Your task to perform on an android device: Open accessibility settings Image 0: 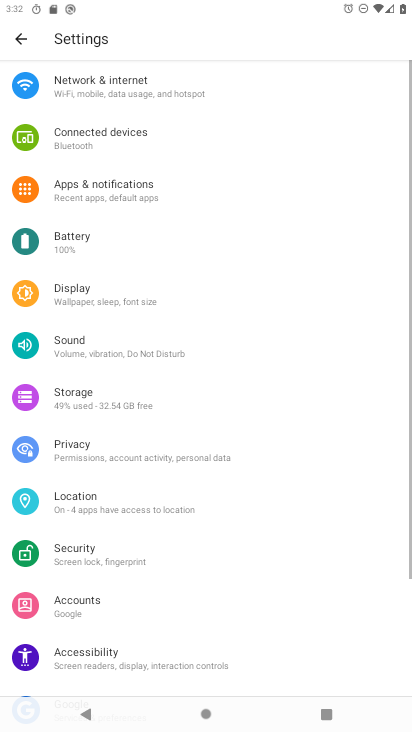
Step 0: press home button
Your task to perform on an android device: Open accessibility settings Image 1: 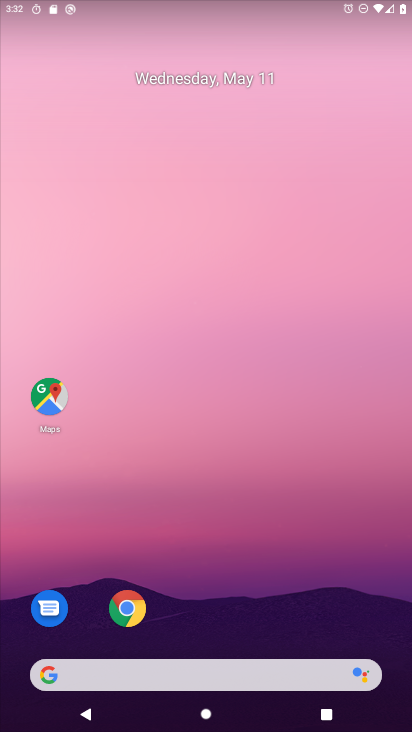
Step 1: drag from (188, 599) to (196, 67)
Your task to perform on an android device: Open accessibility settings Image 2: 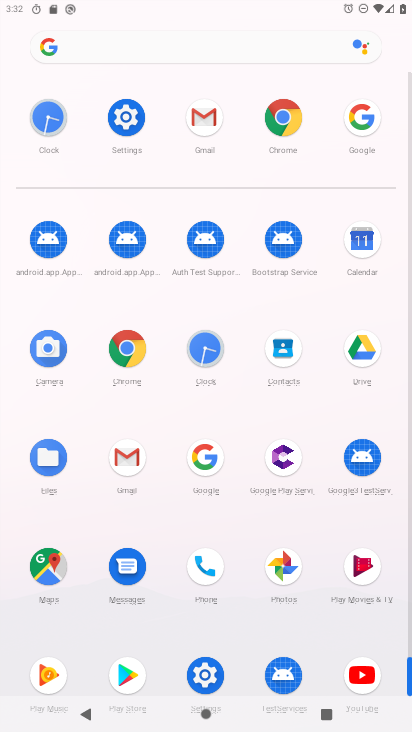
Step 2: drag from (208, 404) to (208, 107)
Your task to perform on an android device: Open accessibility settings Image 3: 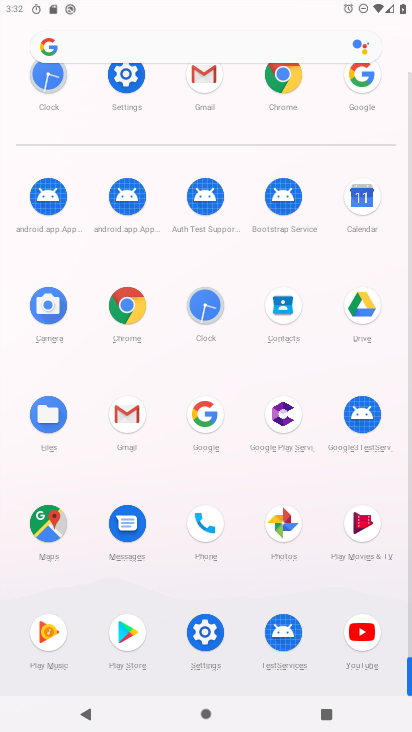
Step 3: click (190, 657)
Your task to perform on an android device: Open accessibility settings Image 4: 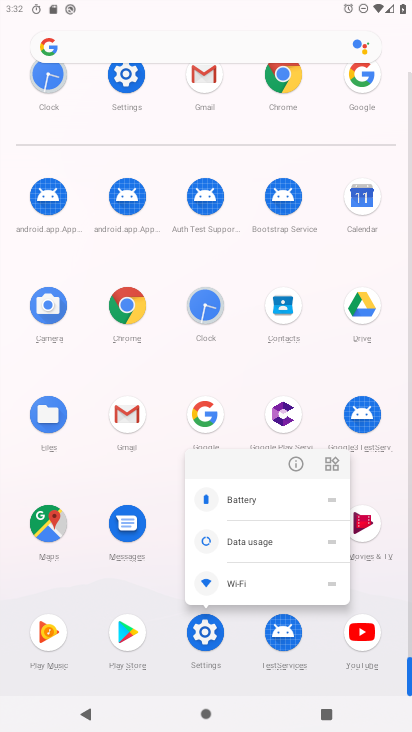
Step 4: click (188, 656)
Your task to perform on an android device: Open accessibility settings Image 5: 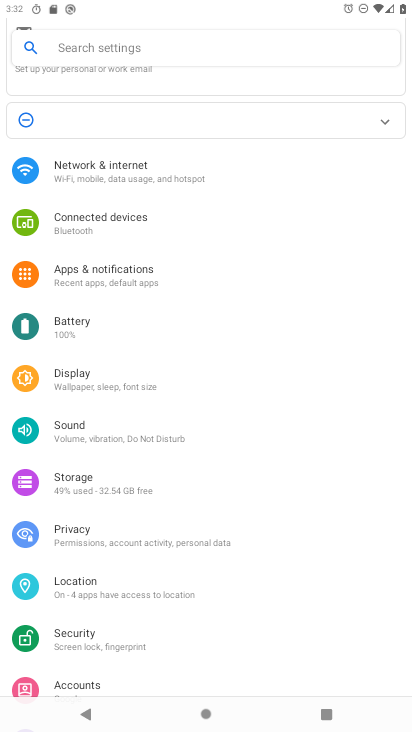
Step 5: drag from (193, 568) to (199, 310)
Your task to perform on an android device: Open accessibility settings Image 6: 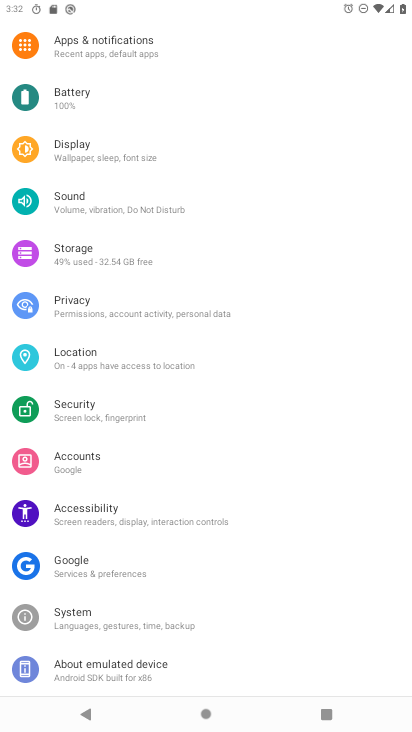
Step 6: drag from (111, 551) to (115, 188)
Your task to perform on an android device: Open accessibility settings Image 7: 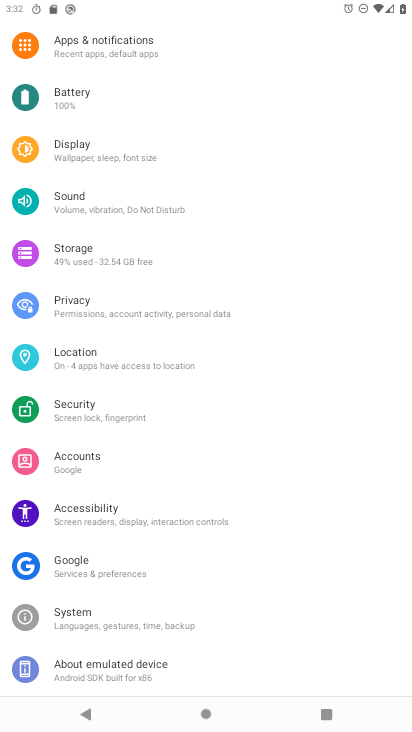
Step 7: click (157, 525)
Your task to perform on an android device: Open accessibility settings Image 8: 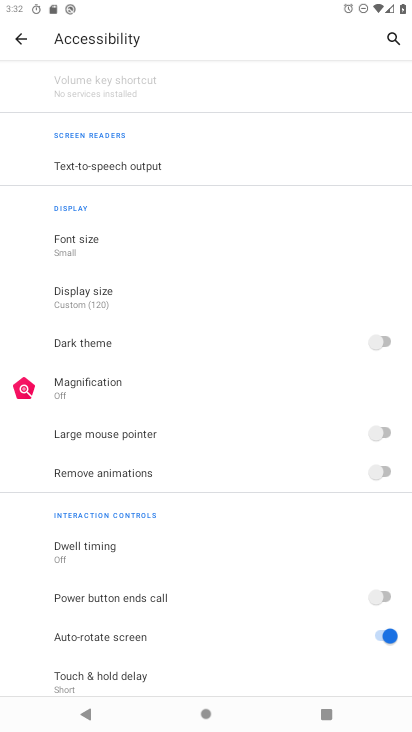
Step 8: task complete